Your task to perform on an android device: See recent photos Image 0: 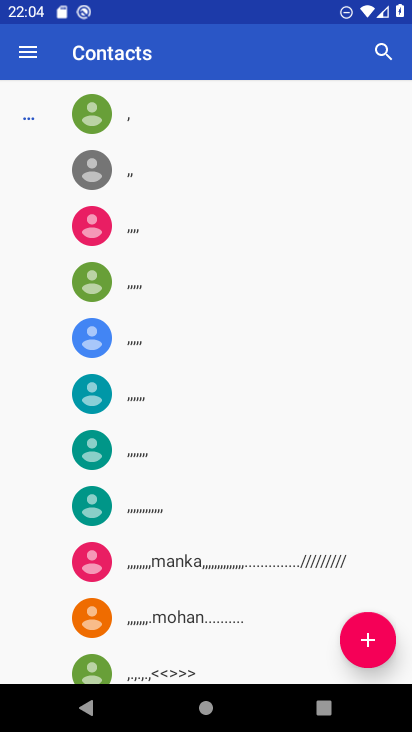
Step 0: press home button
Your task to perform on an android device: See recent photos Image 1: 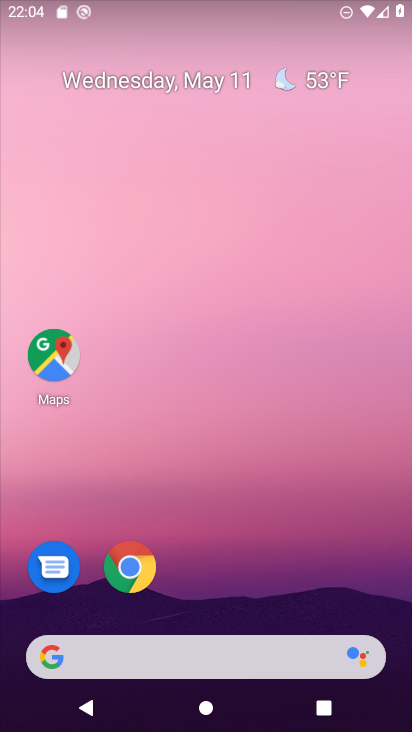
Step 1: drag from (271, 707) to (312, 238)
Your task to perform on an android device: See recent photos Image 2: 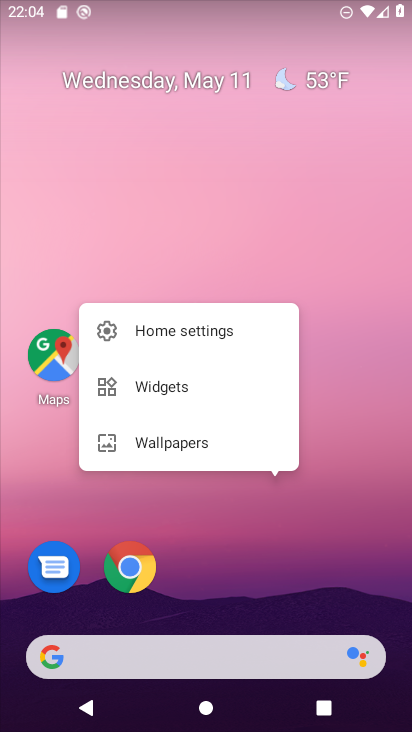
Step 2: press home button
Your task to perform on an android device: See recent photos Image 3: 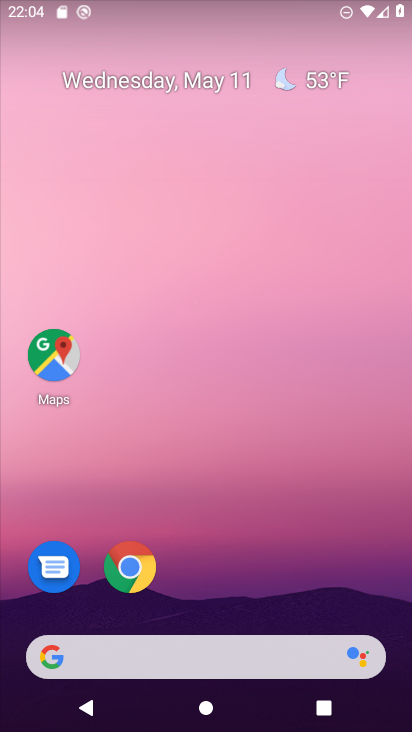
Step 3: drag from (260, 709) to (316, 57)
Your task to perform on an android device: See recent photos Image 4: 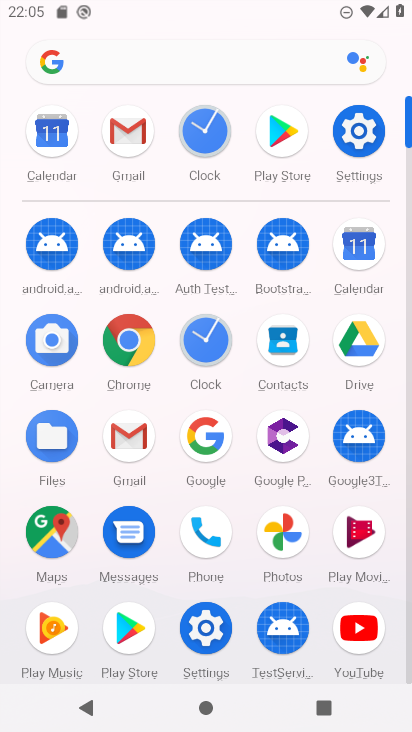
Step 4: click (285, 533)
Your task to perform on an android device: See recent photos Image 5: 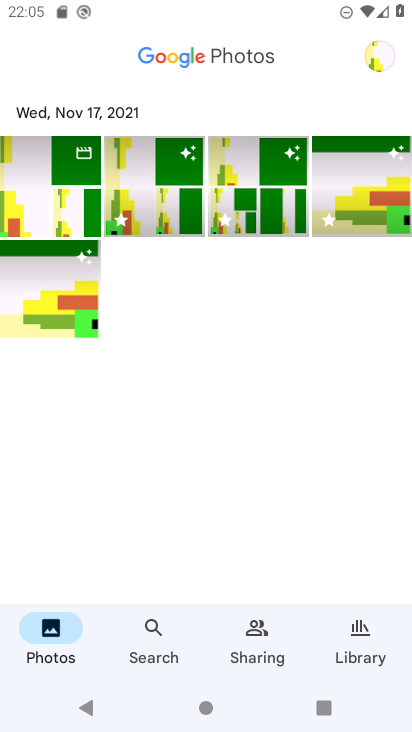
Step 5: task complete